Your task to perform on an android device: Go to location settings Image 0: 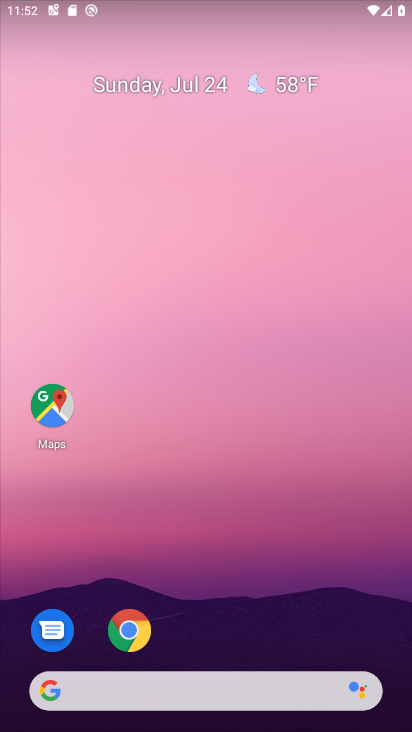
Step 0: drag from (172, 580) to (177, 155)
Your task to perform on an android device: Go to location settings Image 1: 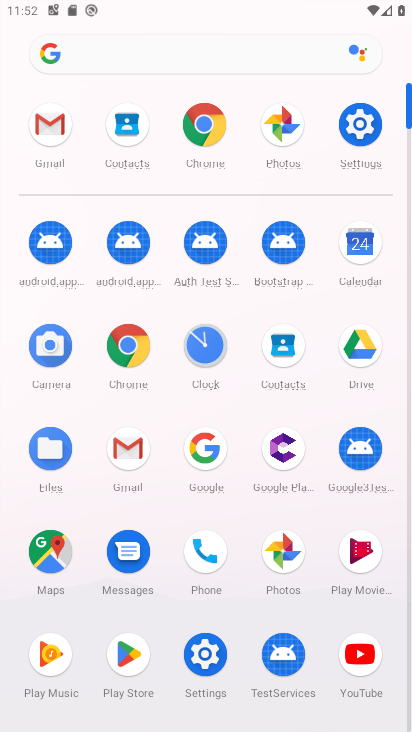
Step 1: click (360, 151)
Your task to perform on an android device: Go to location settings Image 2: 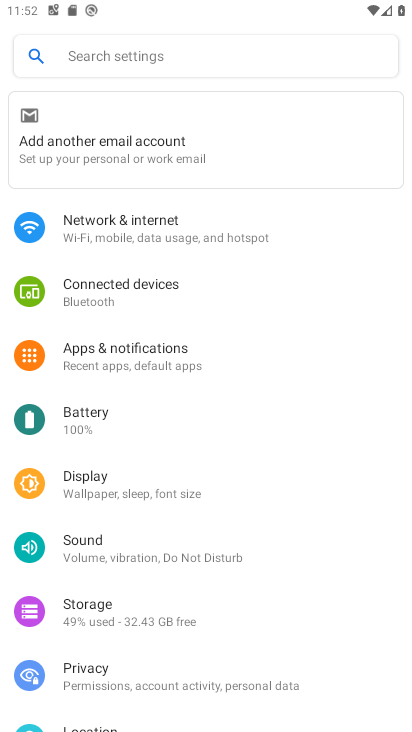
Step 2: drag from (86, 351) to (98, 212)
Your task to perform on an android device: Go to location settings Image 3: 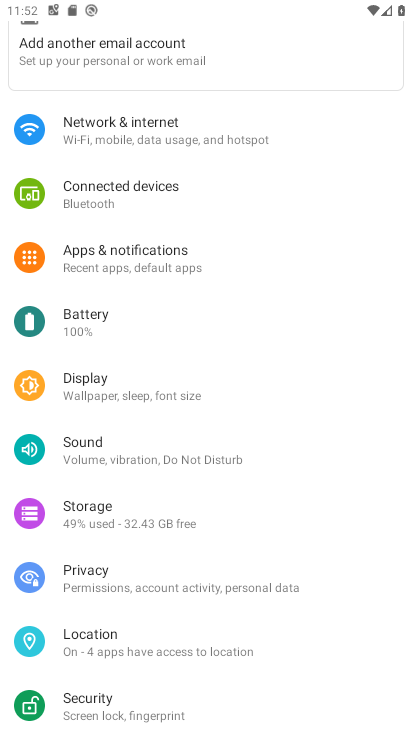
Step 3: click (96, 657)
Your task to perform on an android device: Go to location settings Image 4: 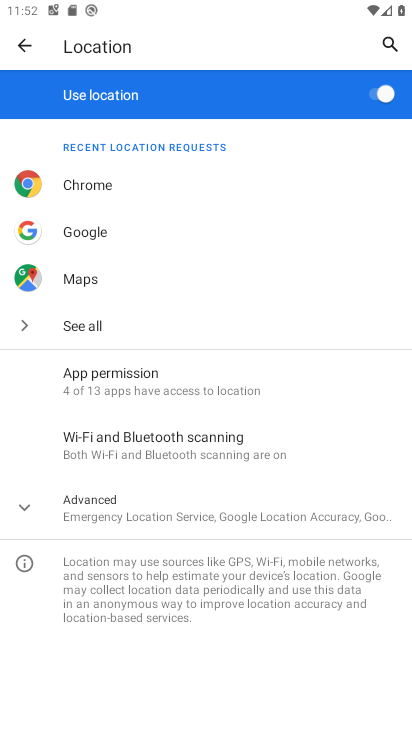
Step 4: task complete